Your task to perform on an android device: Search for vegetarian restaurants on Maps Image 0: 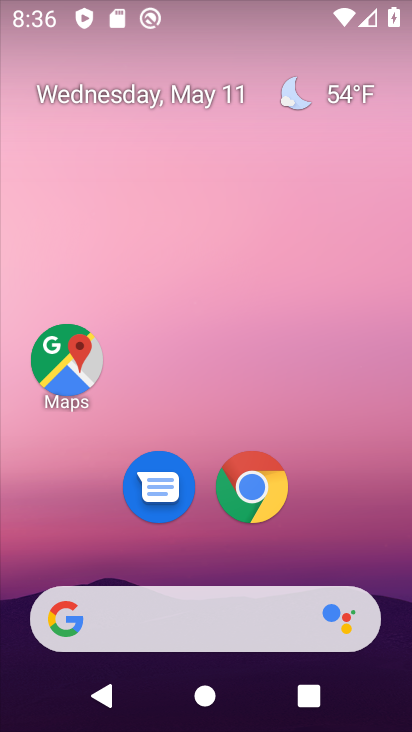
Step 0: click (76, 375)
Your task to perform on an android device: Search for vegetarian restaurants on Maps Image 1: 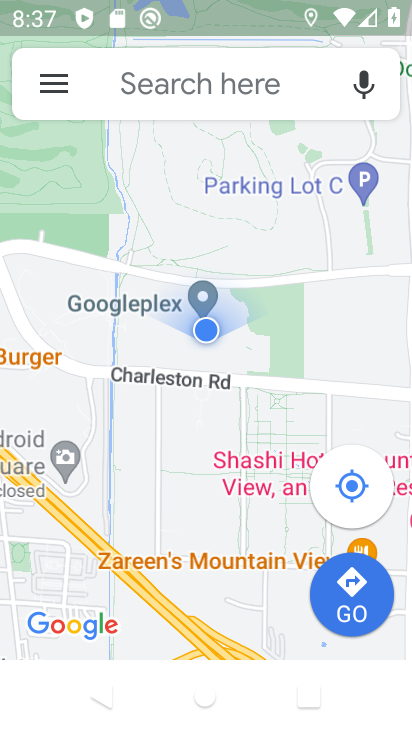
Step 1: click (221, 95)
Your task to perform on an android device: Search for vegetarian restaurants on Maps Image 2: 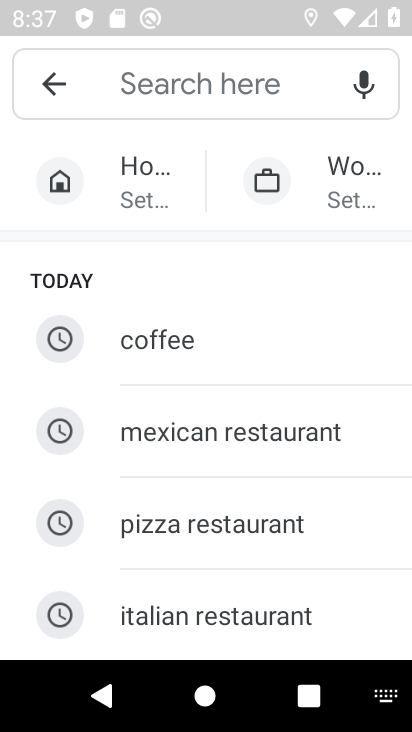
Step 2: type "Vegetarian restaurants"
Your task to perform on an android device: Search for vegetarian restaurants on Maps Image 3: 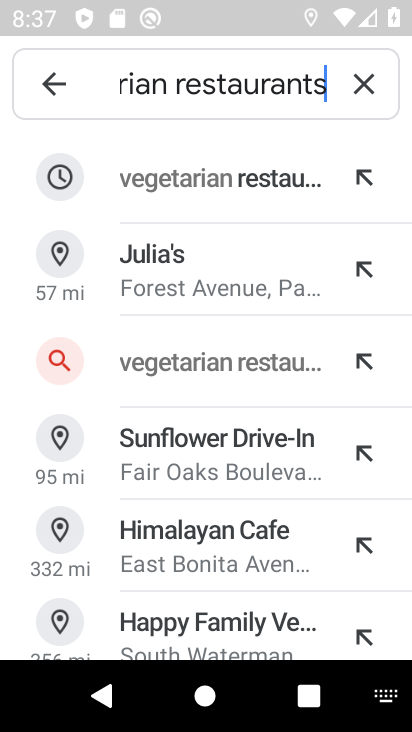
Step 3: click (209, 202)
Your task to perform on an android device: Search for vegetarian restaurants on Maps Image 4: 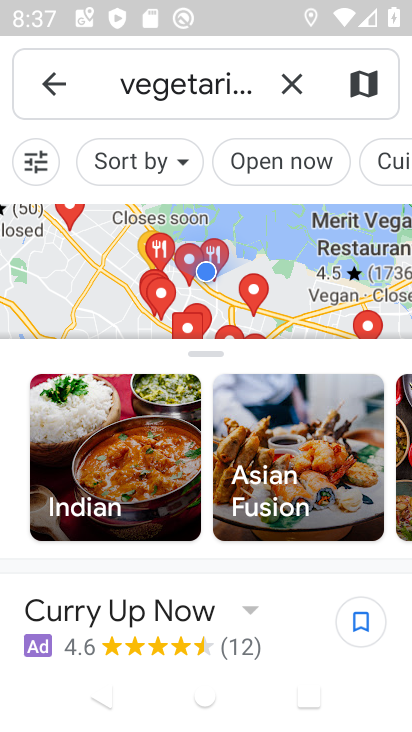
Step 4: task complete